Your task to perform on an android device: turn off data saver in the chrome app Image 0: 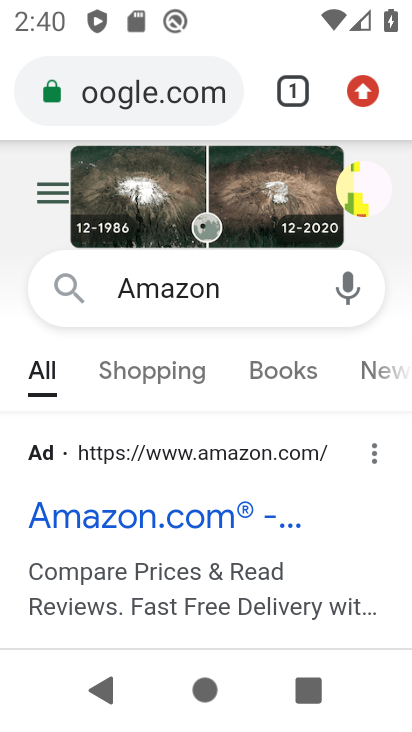
Step 0: press home button
Your task to perform on an android device: turn off data saver in the chrome app Image 1: 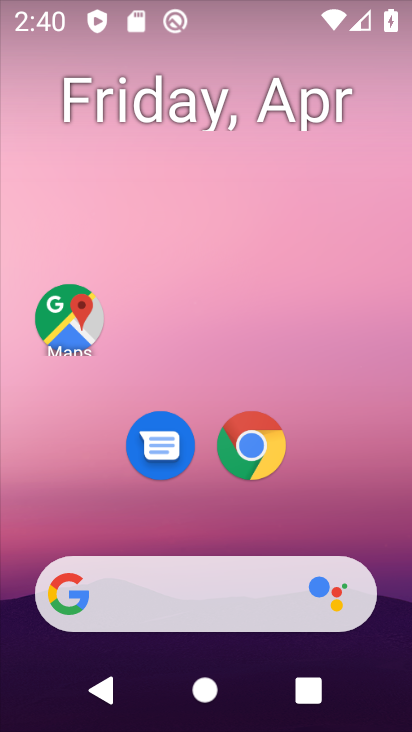
Step 1: click (254, 442)
Your task to perform on an android device: turn off data saver in the chrome app Image 2: 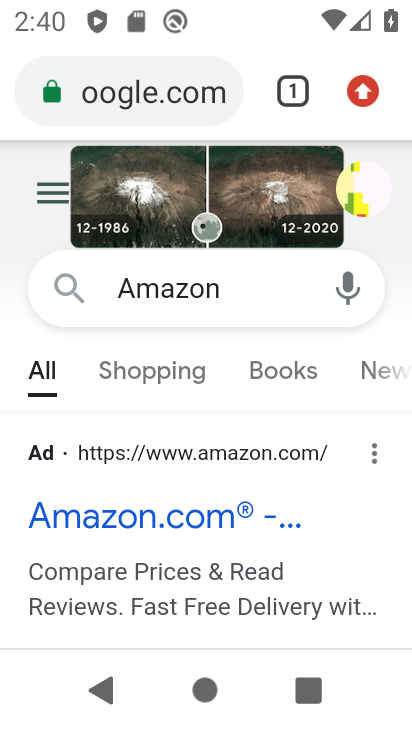
Step 2: click (365, 93)
Your task to perform on an android device: turn off data saver in the chrome app Image 3: 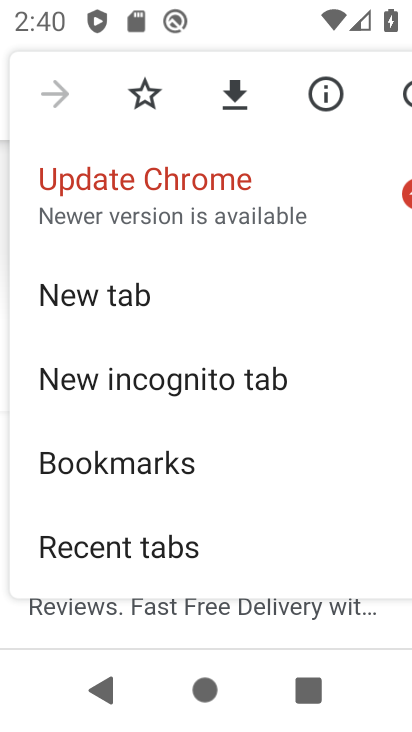
Step 3: drag from (204, 491) to (244, 338)
Your task to perform on an android device: turn off data saver in the chrome app Image 4: 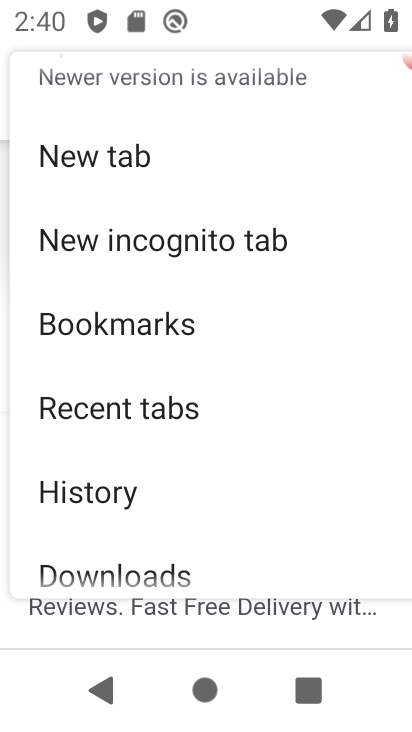
Step 4: drag from (228, 469) to (278, 367)
Your task to perform on an android device: turn off data saver in the chrome app Image 5: 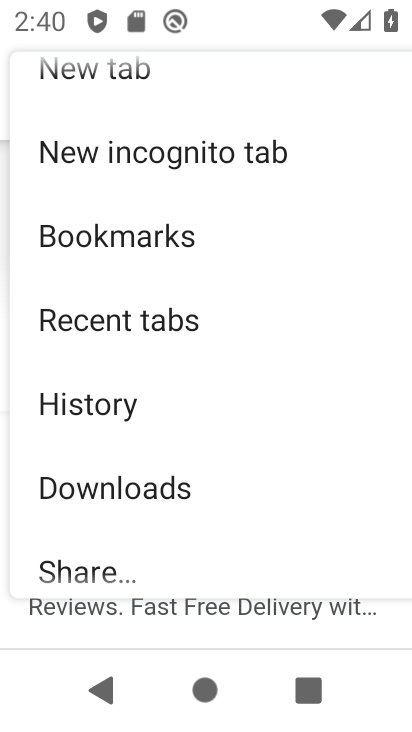
Step 5: drag from (257, 504) to (290, 388)
Your task to perform on an android device: turn off data saver in the chrome app Image 6: 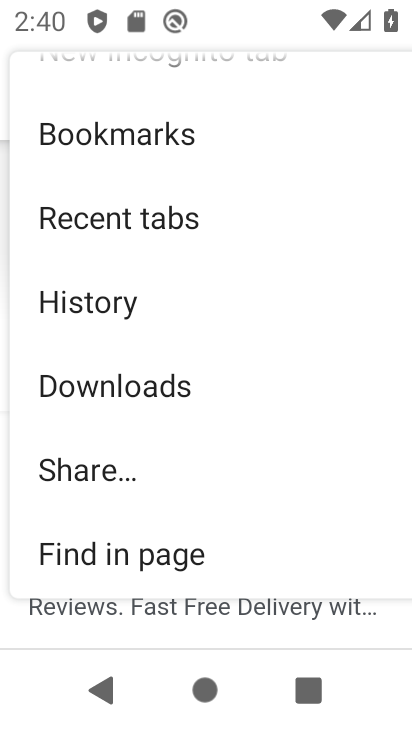
Step 6: drag from (252, 475) to (314, 360)
Your task to perform on an android device: turn off data saver in the chrome app Image 7: 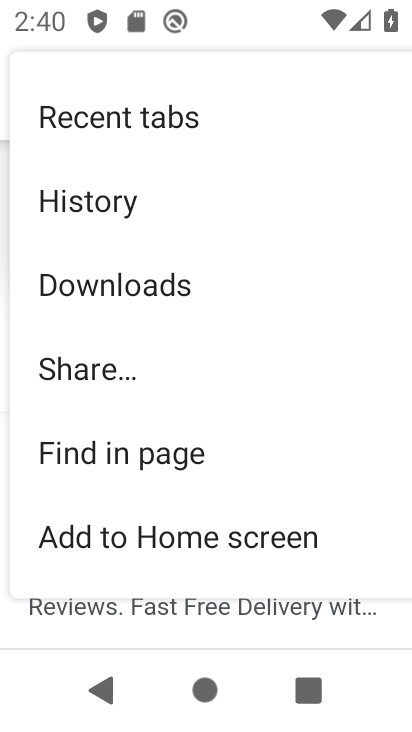
Step 7: drag from (237, 458) to (271, 380)
Your task to perform on an android device: turn off data saver in the chrome app Image 8: 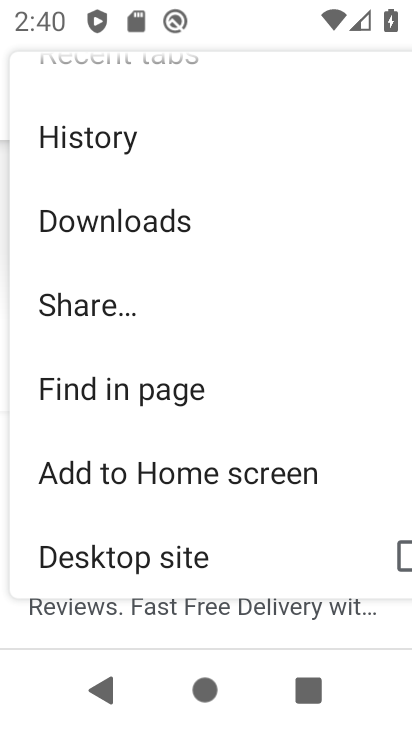
Step 8: drag from (236, 482) to (272, 414)
Your task to perform on an android device: turn off data saver in the chrome app Image 9: 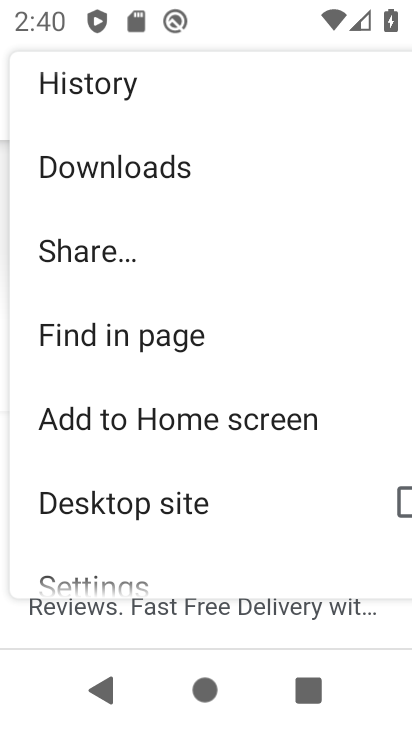
Step 9: drag from (212, 532) to (262, 401)
Your task to perform on an android device: turn off data saver in the chrome app Image 10: 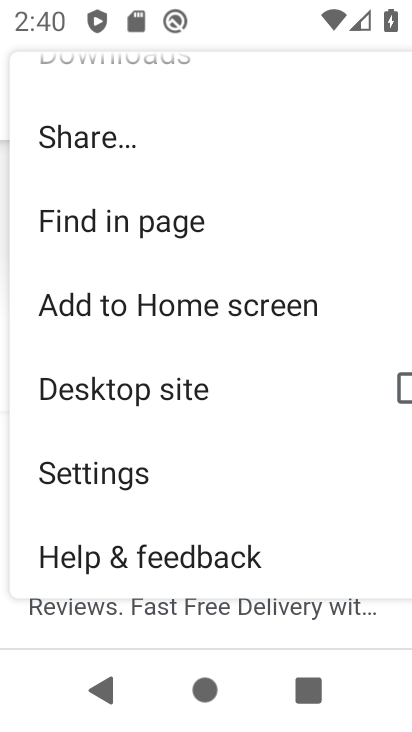
Step 10: click (115, 478)
Your task to perform on an android device: turn off data saver in the chrome app Image 11: 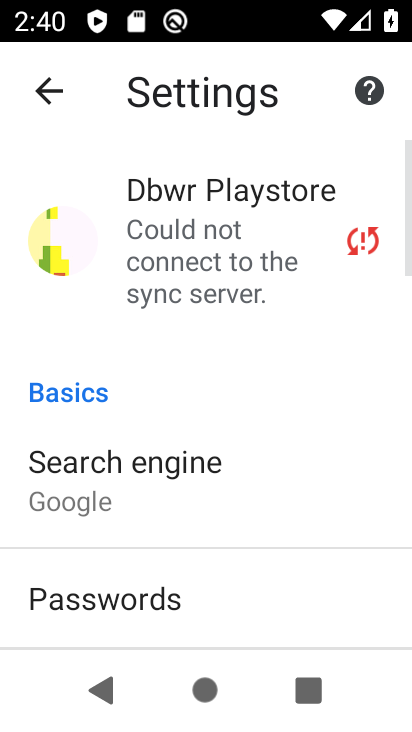
Step 11: drag from (146, 515) to (179, 405)
Your task to perform on an android device: turn off data saver in the chrome app Image 12: 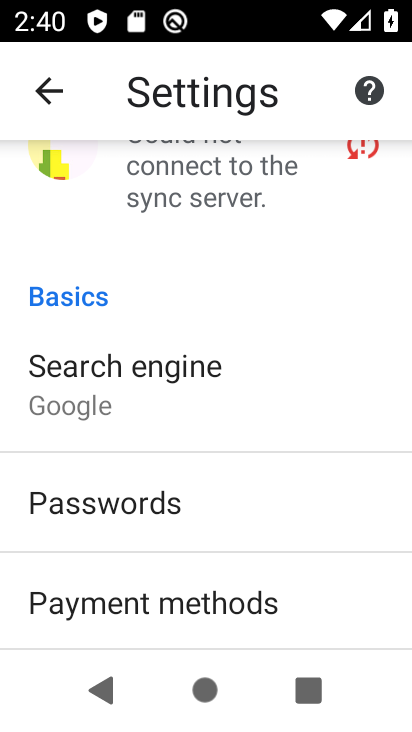
Step 12: drag from (187, 528) to (222, 418)
Your task to perform on an android device: turn off data saver in the chrome app Image 13: 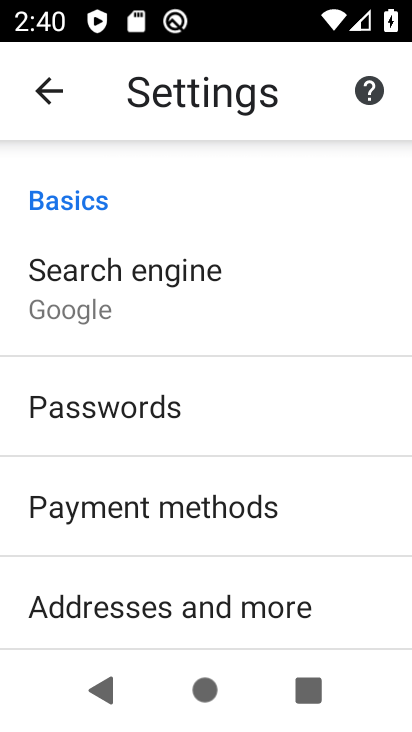
Step 13: drag from (183, 517) to (229, 380)
Your task to perform on an android device: turn off data saver in the chrome app Image 14: 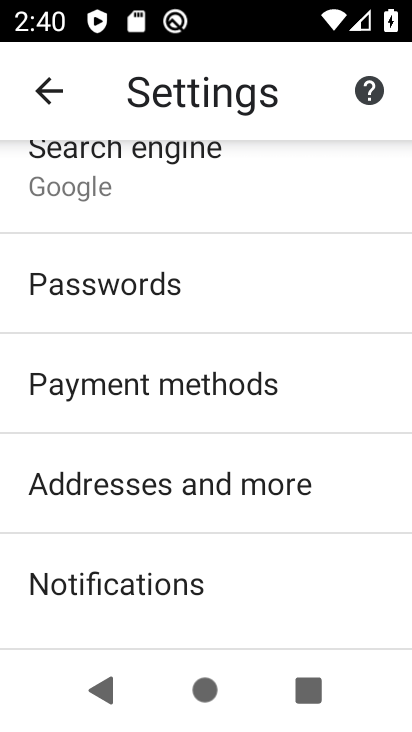
Step 14: drag from (186, 519) to (238, 411)
Your task to perform on an android device: turn off data saver in the chrome app Image 15: 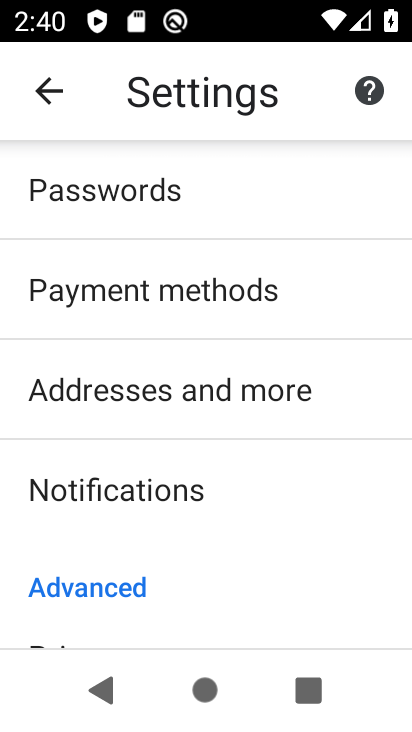
Step 15: drag from (167, 529) to (219, 450)
Your task to perform on an android device: turn off data saver in the chrome app Image 16: 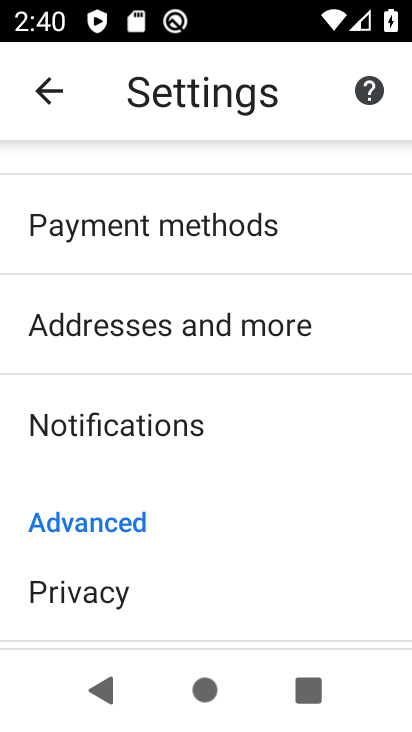
Step 16: drag from (145, 563) to (210, 468)
Your task to perform on an android device: turn off data saver in the chrome app Image 17: 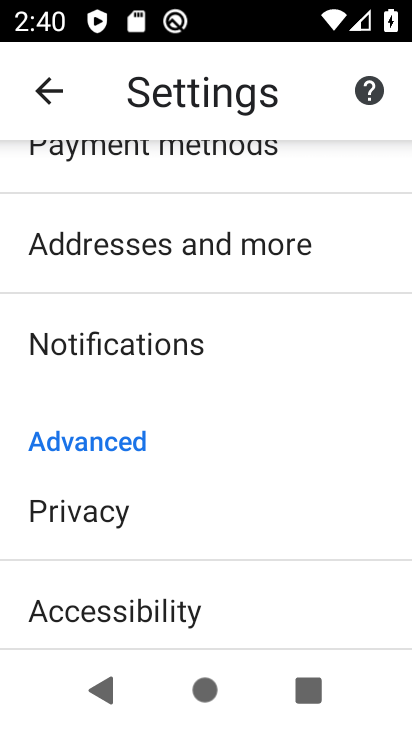
Step 17: drag from (162, 552) to (206, 441)
Your task to perform on an android device: turn off data saver in the chrome app Image 18: 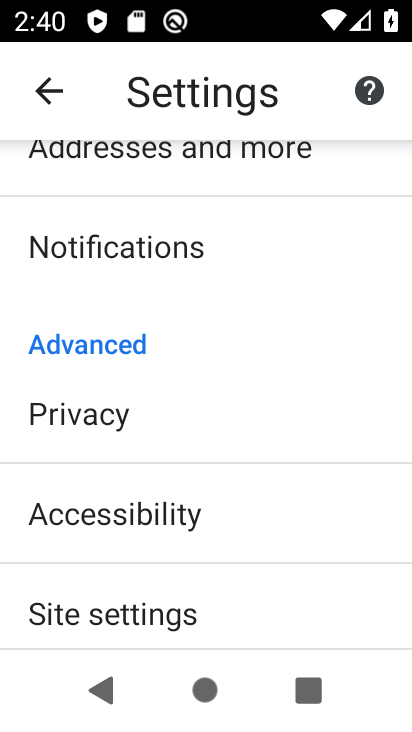
Step 18: drag from (156, 540) to (208, 464)
Your task to perform on an android device: turn off data saver in the chrome app Image 19: 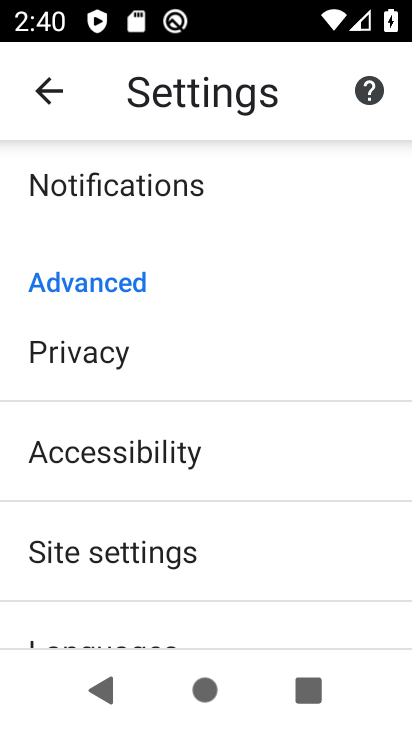
Step 19: drag from (196, 577) to (252, 476)
Your task to perform on an android device: turn off data saver in the chrome app Image 20: 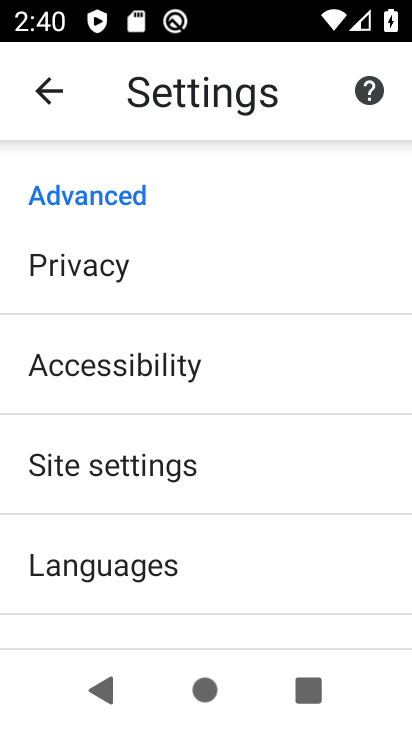
Step 20: drag from (207, 560) to (270, 462)
Your task to perform on an android device: turn off data saver in the chrome app Image 21: 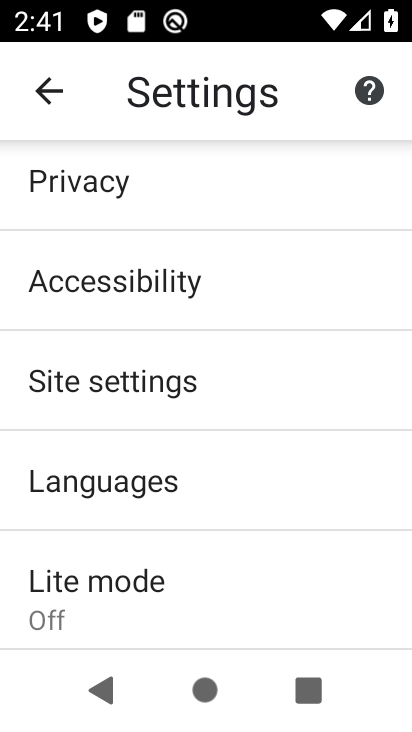
Step 21: click (146, 581)
Your task to perform on an android device: turn off data saver in the chrome app Image 22: 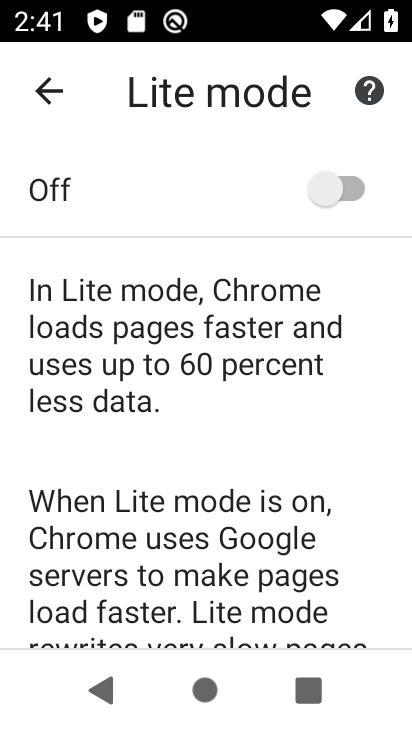
Step 22: task complete